Your task to perform on an android device: Open privacy settings Image 0: 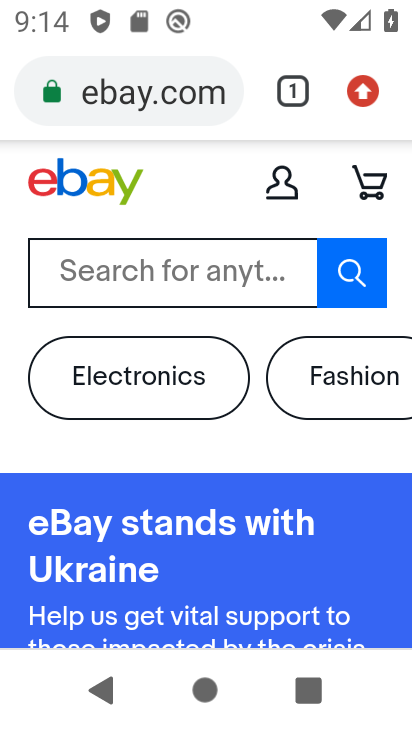
Step 0: press home button
Your task to perform on an android device: Open privacy settings Image 1: 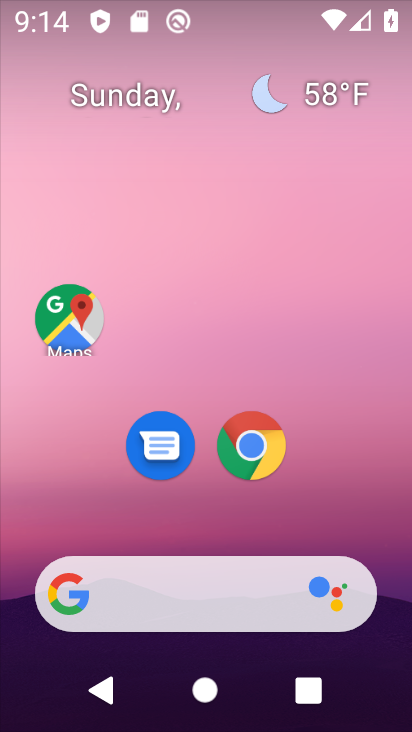
Step 1: drag from (215, 583) to (162, 16)
Your task to perform on an android device: Open privacy settings Image 2: 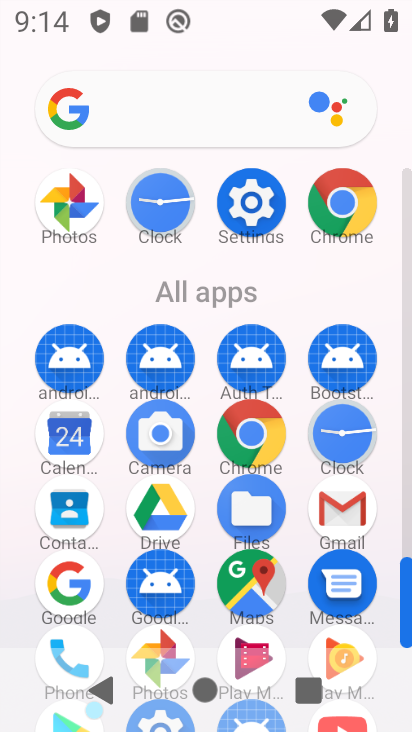
Step 2: click (260, 225)
Your task to perform on an android device: Open privacy settings Image 3: 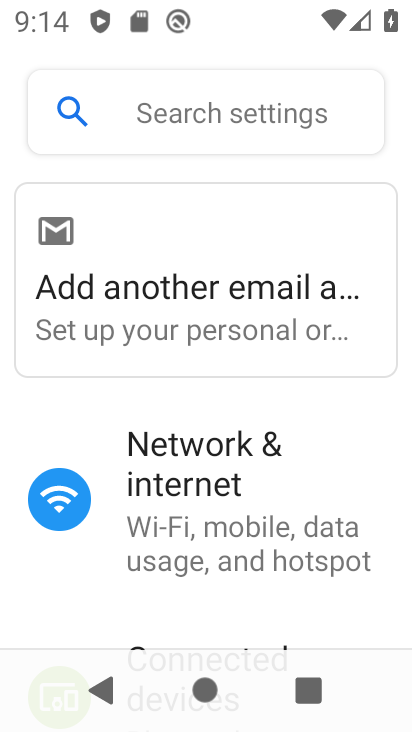
Step 3: drag from (286, 556) to (88, 2)
Your task to perform on an android device: Open privacy settings Image 4: 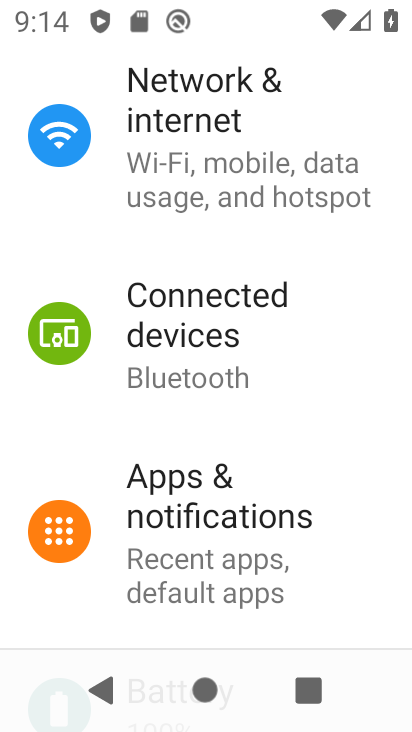
Step 4: drag from (281, 571) to (109, 44)
Your task to perform on an android device: Open privacy settings Image 5: 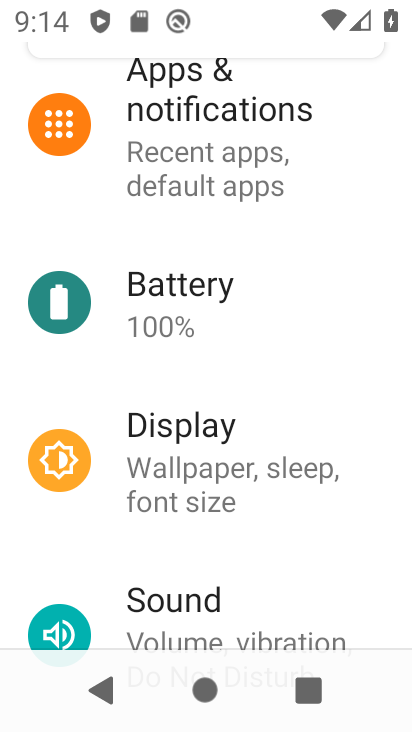
Step 5: drag from (236, 599) to (180, 23)
Your task to perform on an android device: Open privacy settings Image 6: 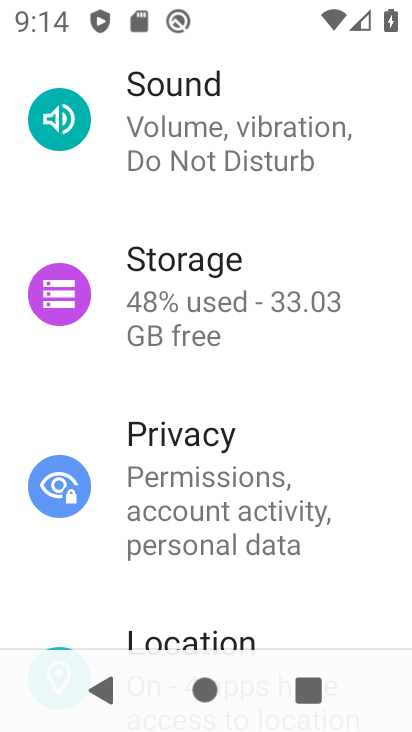
Step 6: click (221, 508)
Your task to perform on an android device: Open privacy settings Image 7: 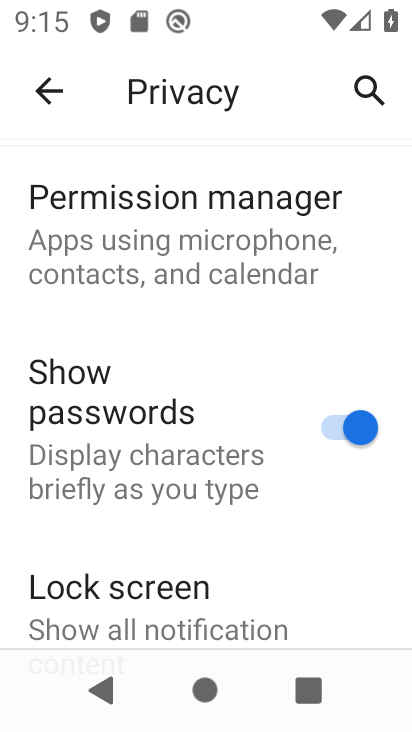
Step 7: task complete